Your task to perform on an android device: search for starred emails in the gmail app Image 0: 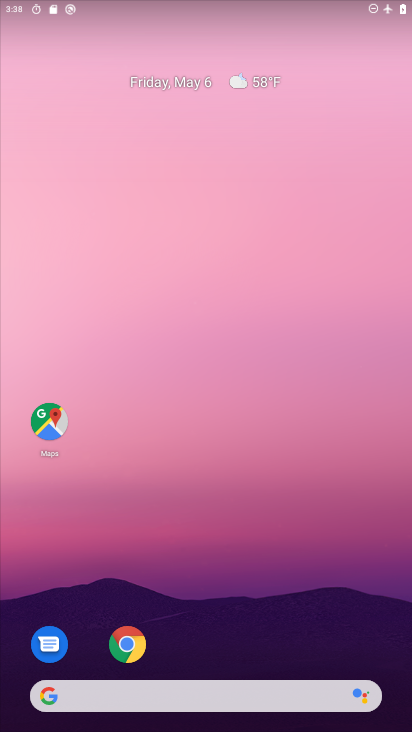
Step 0: drag from (238, 731) to (240, 170)
Your task to perform on an android device: search for starred emails in the gmail app Image 1: 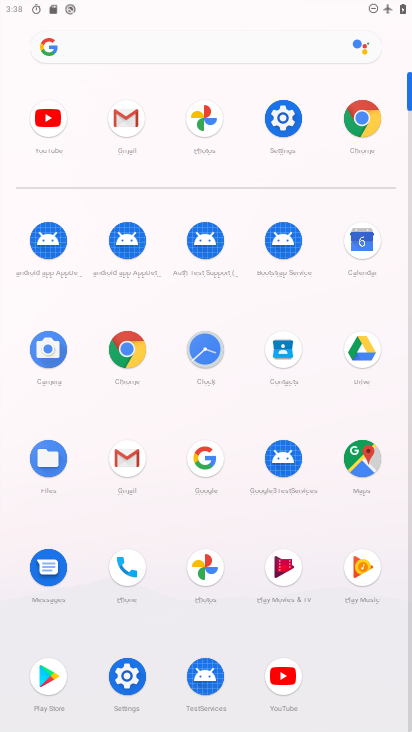
Step 1: click (123, 457)
Your task to perform on an android device: search for starred emails in the gmail app Image 2: 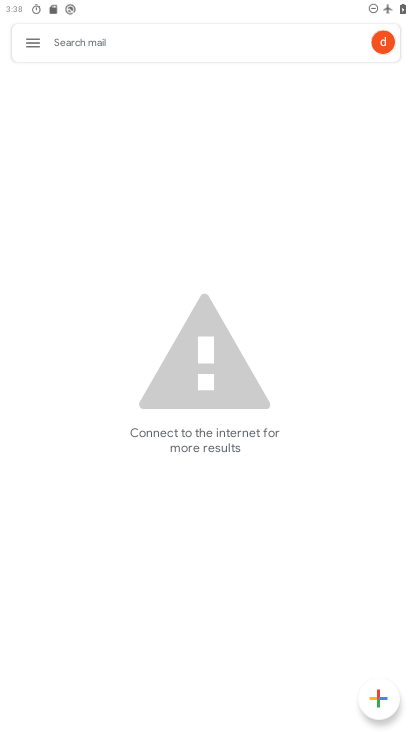
Step 2: click (36, 40)
Your task to perform on an android device: search for starred emails in the gmail app Image 3: 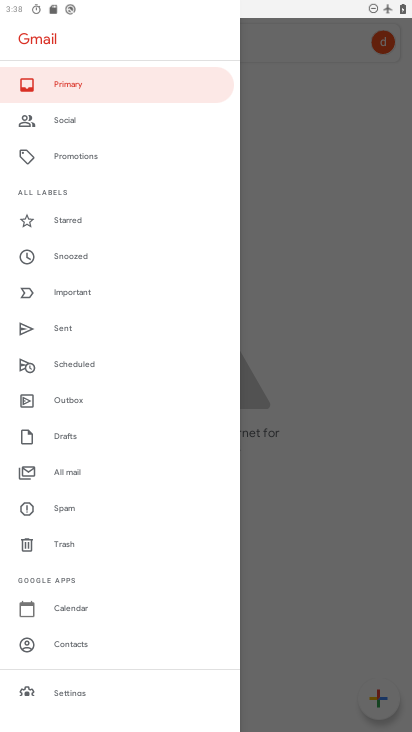
Step 3: click (78, 217)
Your task to perform on an android device: search for starred emails in the gmail app Image 4: 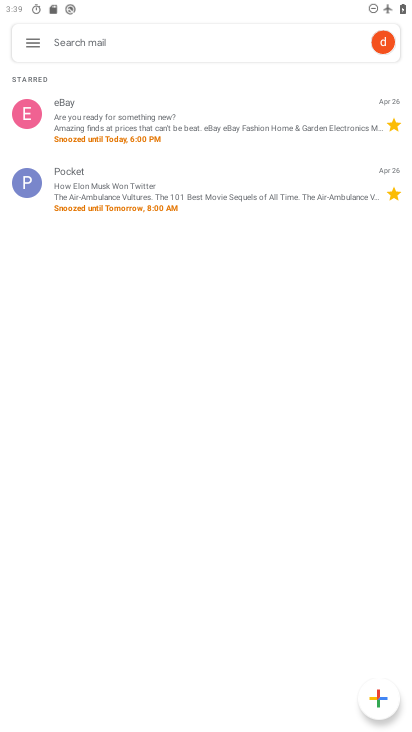
Step 4: task complete